Your task to perform on an android device: Open Reddit.com Image 0: 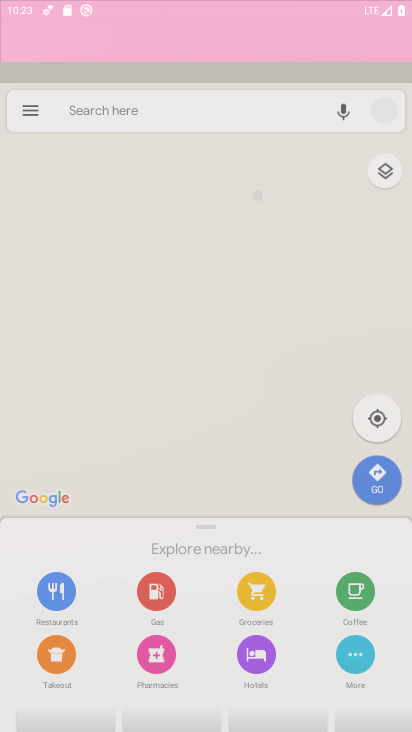
Step 0: drag from (263, 549) to (275, 269)
Your task to perform on an android device: Open Reddit.com Image 1: 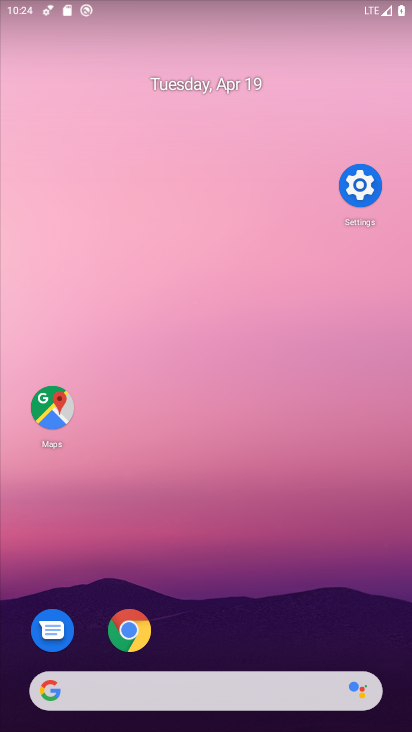
Step 1: click (139, 637)
Your task to perform on an android device: Open Reddit.com Image 2: 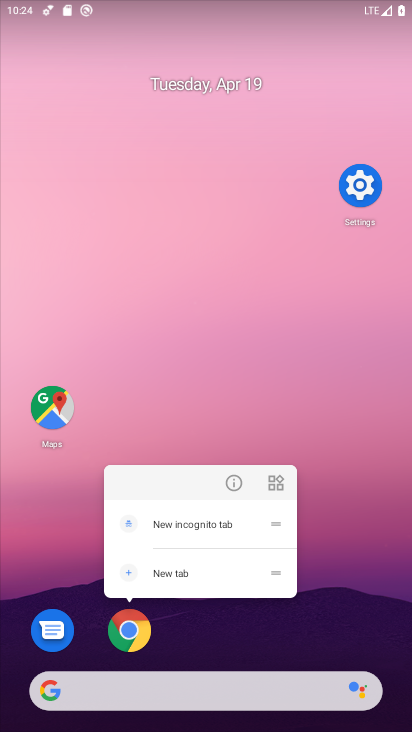
Step 2: click (139, 637)
Your task to perform on an android device: Open Reddit.com Image 3: 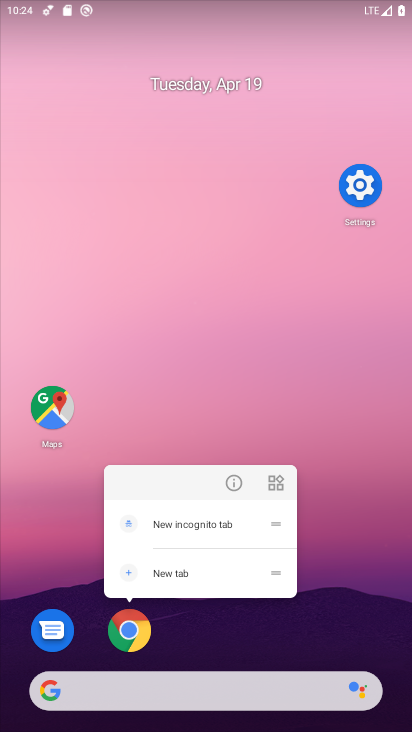
Step 3: click (130, 634)
Your task to perform on an android device: Open Reddit.com Image 4: 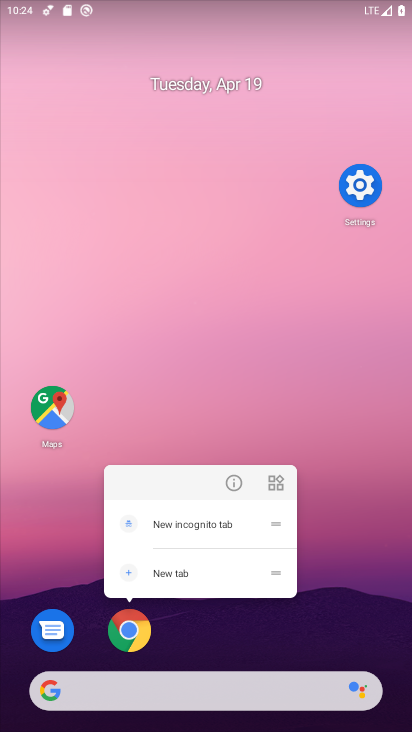
Step 4: click (125, 629)
Your task to perform on an android device: Open Reddit.com Image 5: 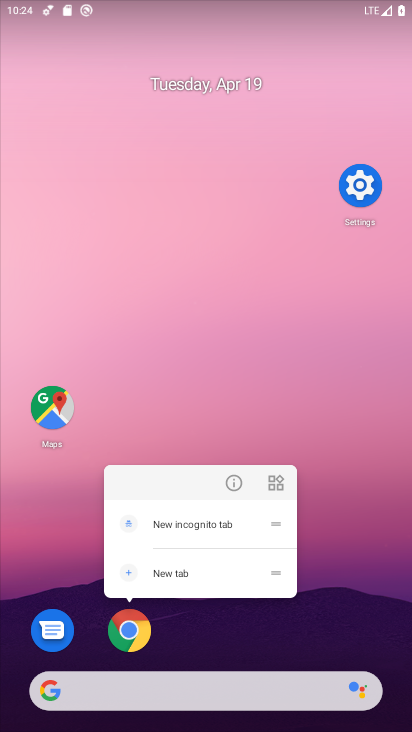
Step 5: click (139, 642)
Your task to perform on an android device: Open Reddit.com Image 6: 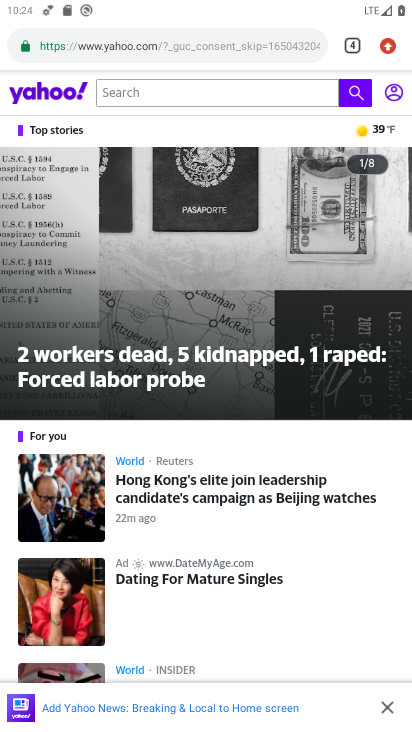
Step 6: click (299, 37)
Your task to perform on an android device: Open Reddit.com Image 7: 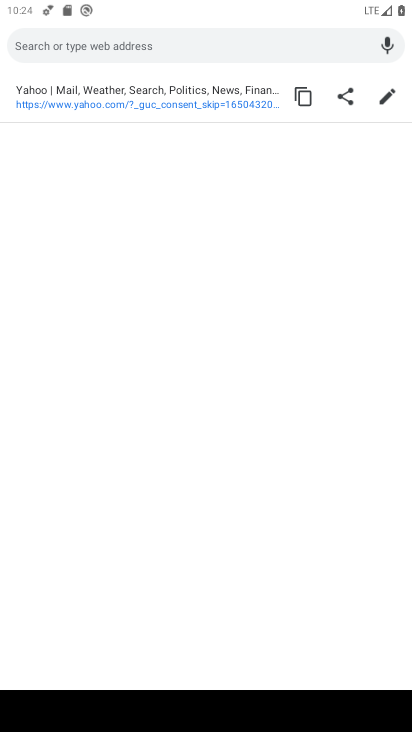
Step 7: type "reddit.com"
Your task to perform on an android device: Open Reddit.com Image 8: 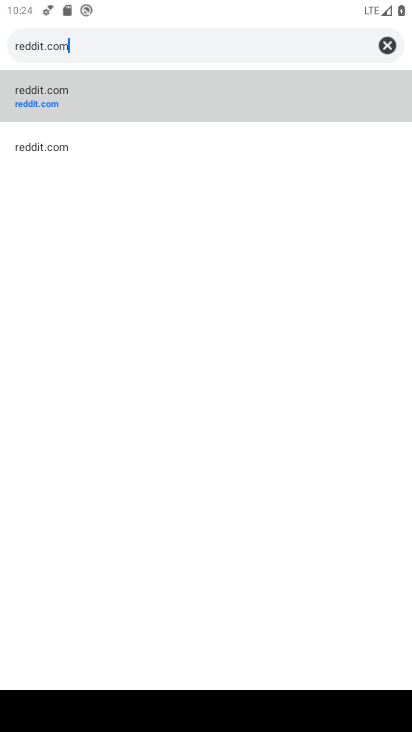
Step 8: click (289, 96)
Your task to perform on an android device: Open Reddit.com Image 9: 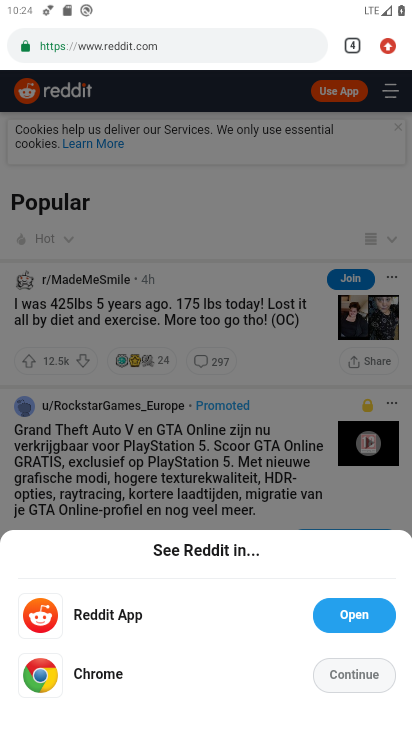
Step 9: click (331, 677)
Your task to perform on an android device: Open Reddit.com Image 10: 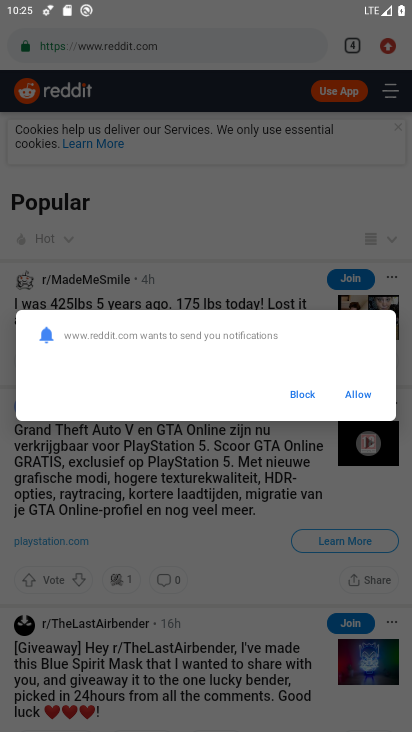
Step 10: task complete